Your task to perform on an android device: Search for pizza restaurants on Maps Image 0: 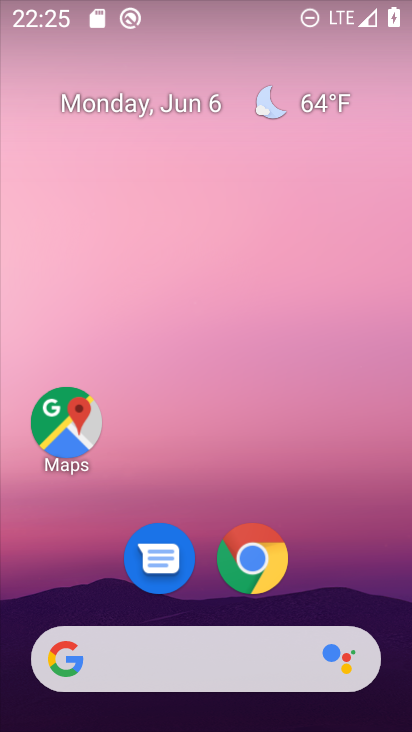
Step 0: drag from (221, 726) to (215, 145)
Your task to perform on an android device: Search for pizza restaurants on Maps Image 1: 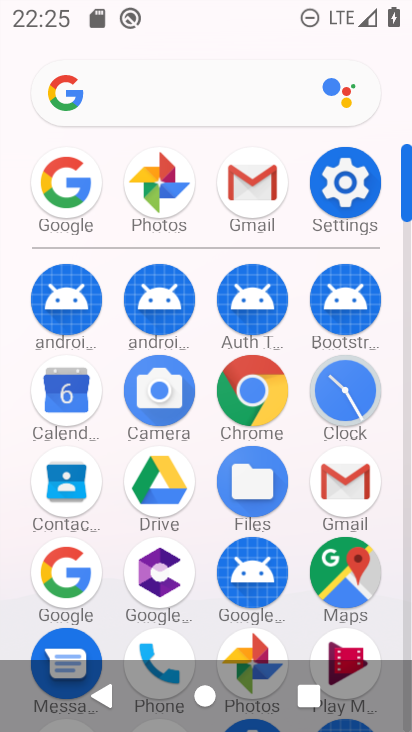
Step 1: click (345, 576)
Your task to perform on an android device: Search for pizza restaurants on Maps Image 2: 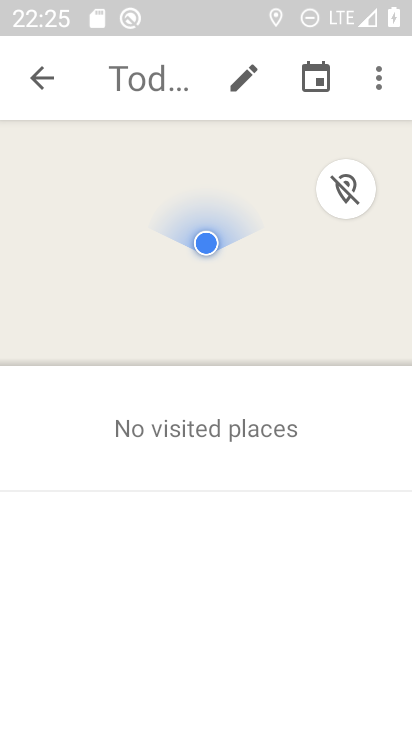
Step 2: click (45, 75)
Your task to perform on an android device: Search for pizza restaurants on Maps Image 3: 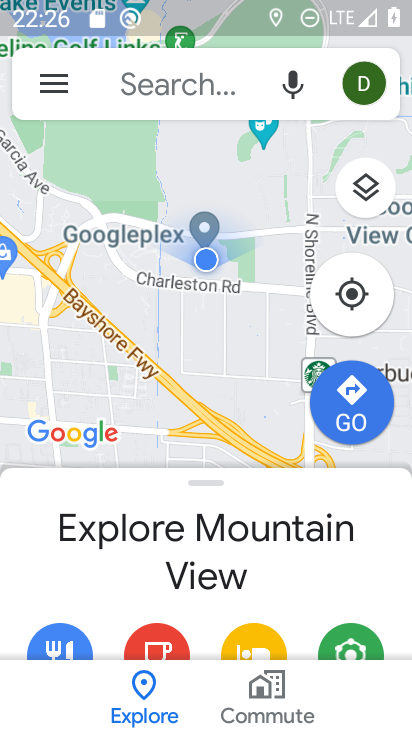
Step 3: click (150, 75)
Your task to perform on an android device: Search for pizza restaurants on Maps Image 4: 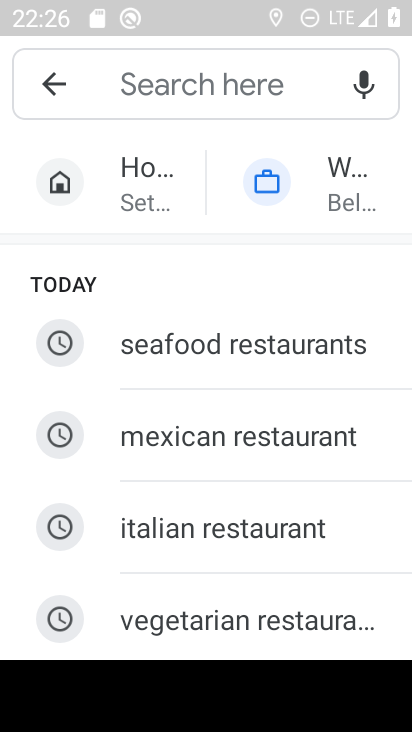
Step 4: type "pizza restaurants"
Your task to perform on an android device: Search for pizza restaurants on Maps Image 5: 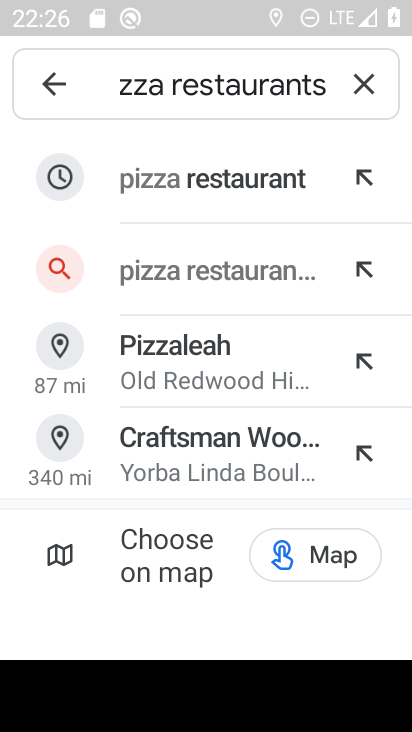
Step 5: click (242, 174)
Your task to perform on an android device: Search for pizza restaurants on Maps Image 6: 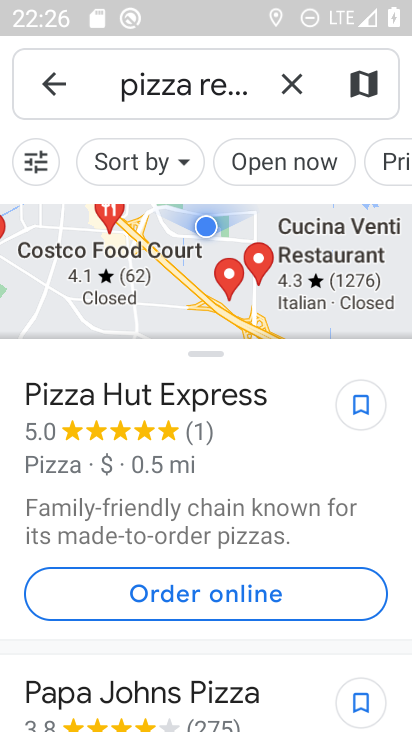
Step 6: task complete